Your task to perform on an android device: toggle priority inbox in the gmail app Image 0: 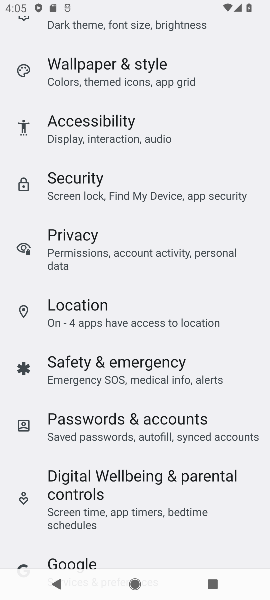
Step 0: press home button
Your task to perform on an android device: toggle priority inbox in the gmail app Image 1: 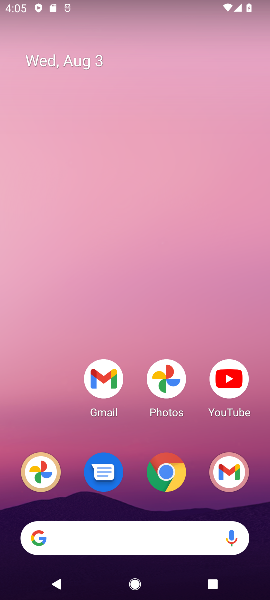
Step 1: drag from (133, 428) to (124, 43)
Your task to perform on an android device: toggle priority inbox in the gmail app Image 2: 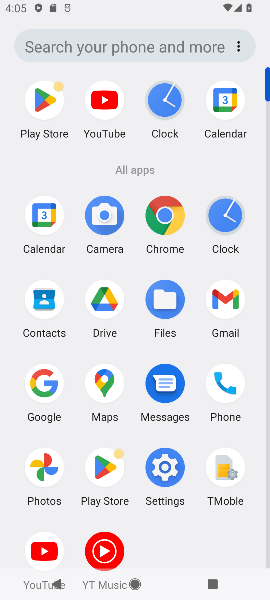
Step 2: click (235, 293)
Your task to perform on an android device: toggle priority inbox in the gmail app Image 3: 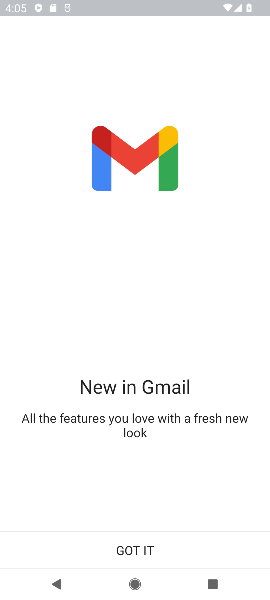
Step 3: click (123, 537)
Your task to perform on an android device: toggle priority inbox in the gmail app Image 4: 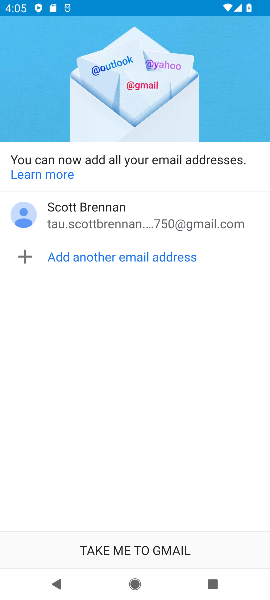
Step 4: click (123, 533)
Your task to perform on an android device: toggle priority inbox in the gmail app Image 5: 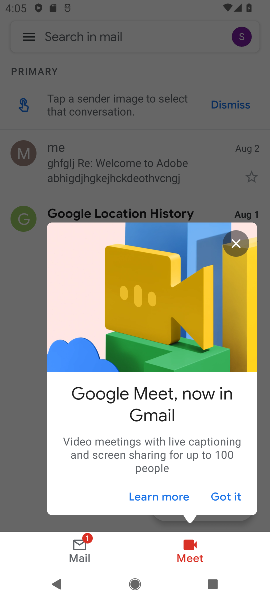
Step 5: click (233, 494)
Your task to perform on an android device: toggle priority inbox in the gmail app Image 6: 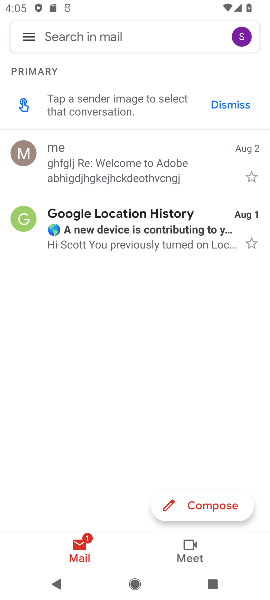
Step 6: click (24, 36)
Your task to perform on an android device: toggle priority inbox in the gmail app Image 7: 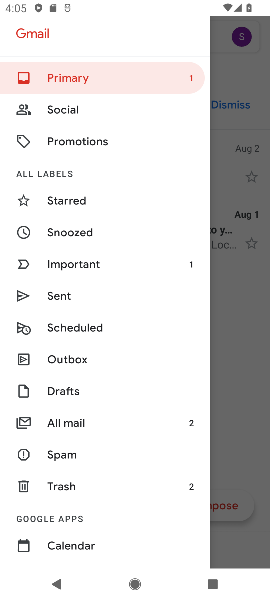
Step 7: drag from (81, 515) to (211, 151)
Your task to perform on an android device: toggle priority inbox in the gmail app Image 8: 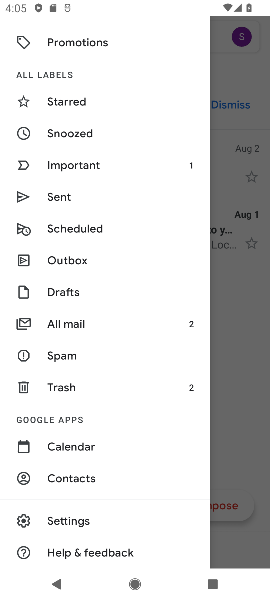
Step 8: click (78, 521)
Your task to perform on an android device: toggle priority inbox in the gmail app Image 9: 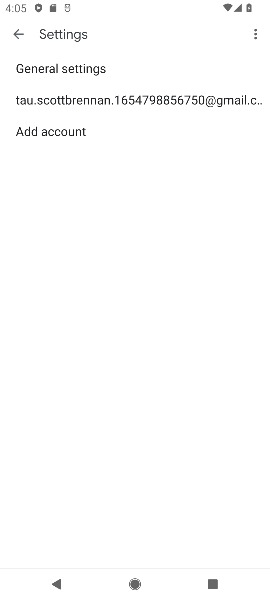
Step 9: click (194, 101)
Your task to perform on an android device: toggle priority inbox in the gmail app Image 10: 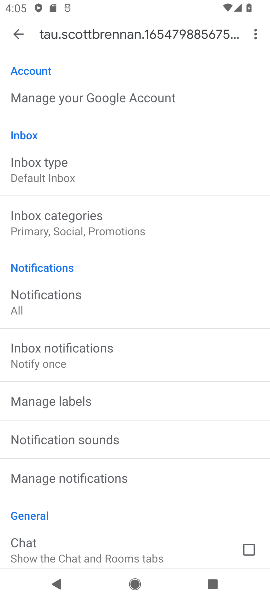
Step 10: click (66, 165)
Your task to perform on an android device: toggle priority inbox in the gmail app Image 11: 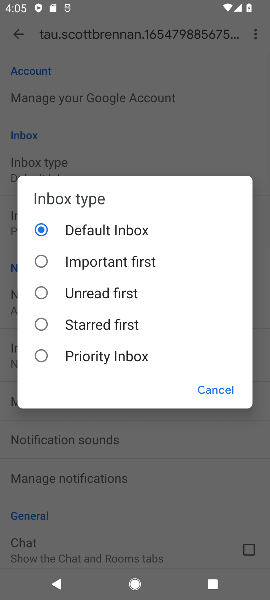
Step 11: click (130, 350)
Your task to perform on an android device: toggle priority inbox in the gmail app Image 12: 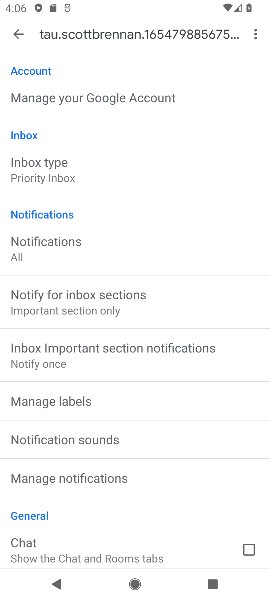
Step 12: task complete